Your task to perform on an android device: Open calendar and show me the fourth week of next month Image 0: 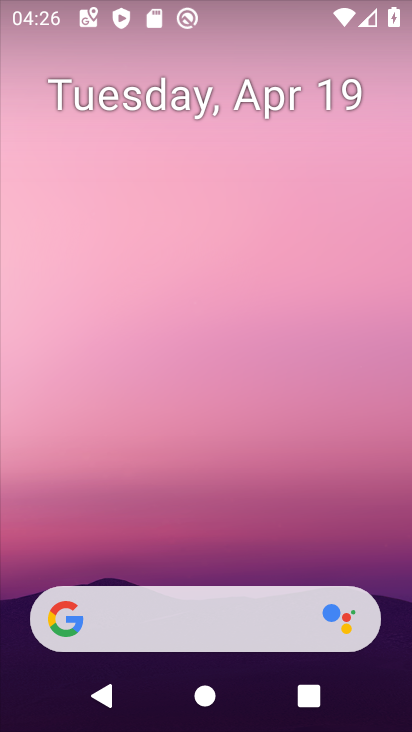
Step 0: drag from (199, 386) to (262, 168)
Your task to perform on an android device: Open calendar and show me the fourth week of next month Image 1: 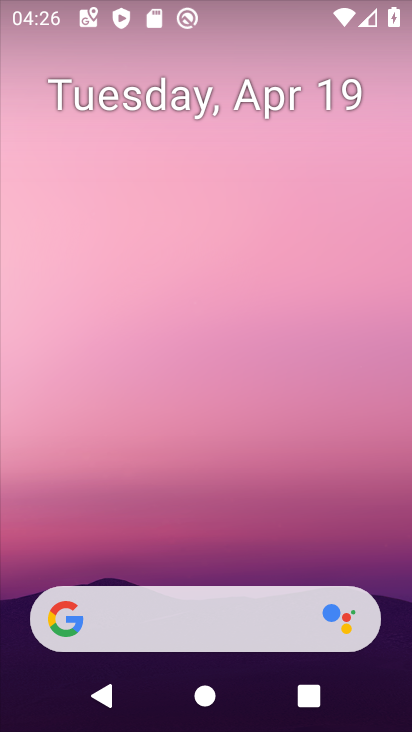
Step 1: drag from (227, 352) to (267, 151)
Your task to perform on an android device: Open calendar and show me the fourth week of next month Image 2: 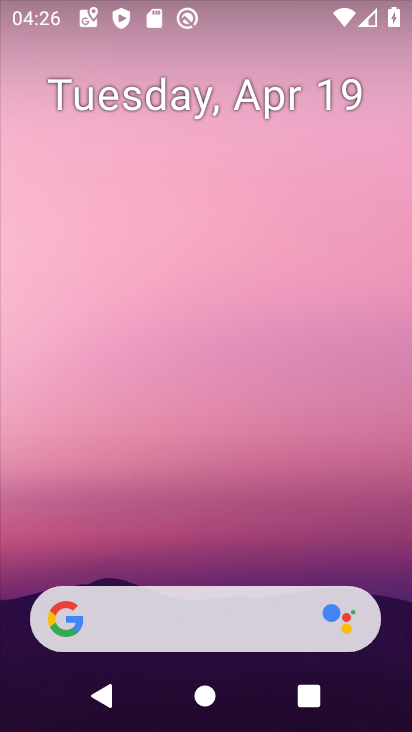
Step 2: drag from (170, 536) to (251, 125)
Your task to perform on an android device: Open calendar and show me the fourth week of next month Image 3: 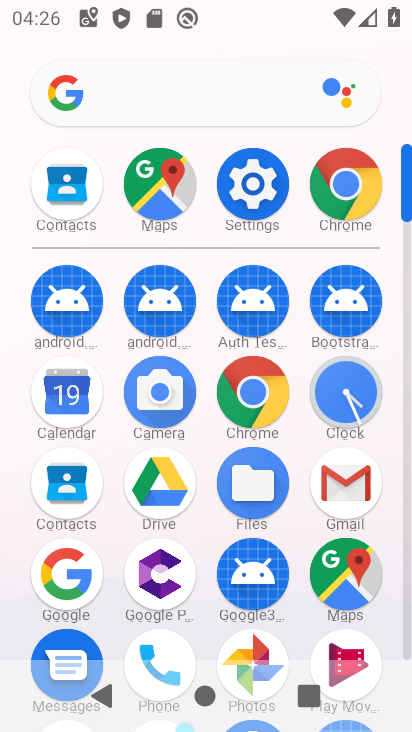
Step 3: click (64, 394)
Your task to perform on an android device: Open calendar and show me the fourth week of next month Image 4: 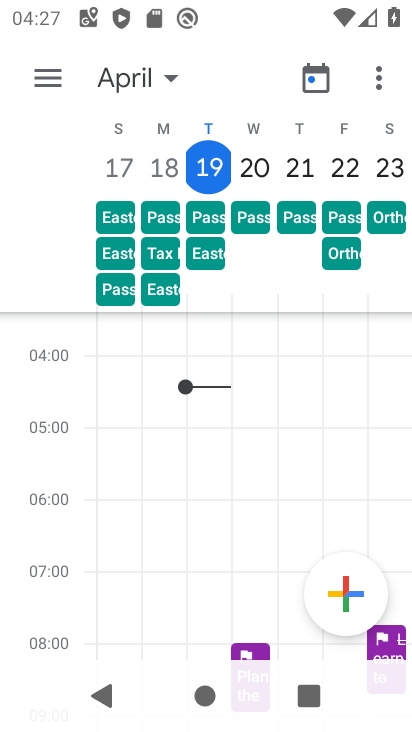
Step 4: click (172, 81)
Your task to perform on an android device: Open calendar and show me the fourth week of next month Image 5: 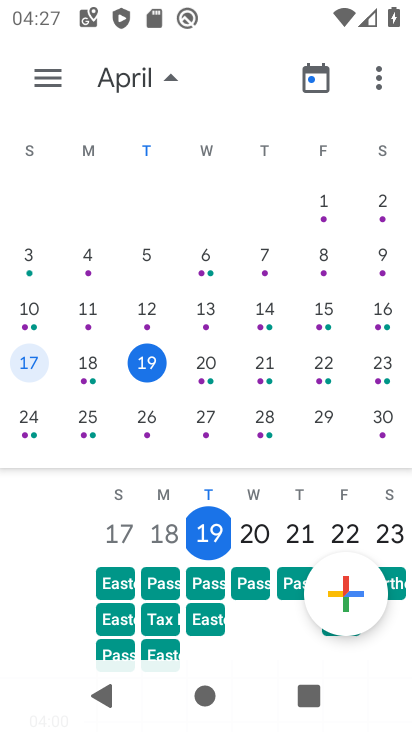
Step 5: drag from (303, 352) to (7, 340)
Your task to perform on an android device: Open calendar and show me the fourth week of next month Image 6: 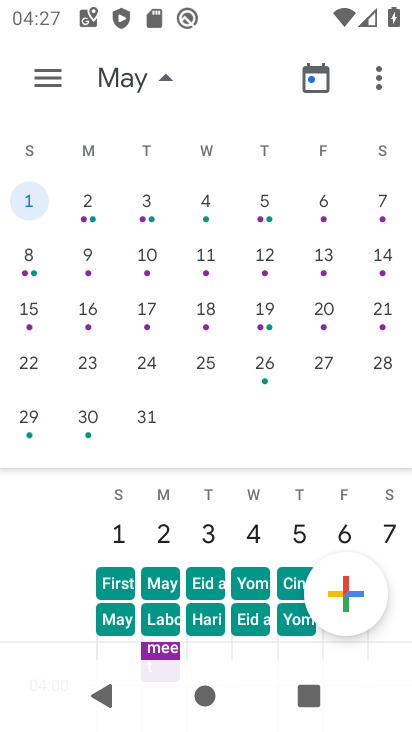
Step 6: click (88, 367)
Your task to perform on an android device: Open calendar and show me the fourth week of next month Image 7: 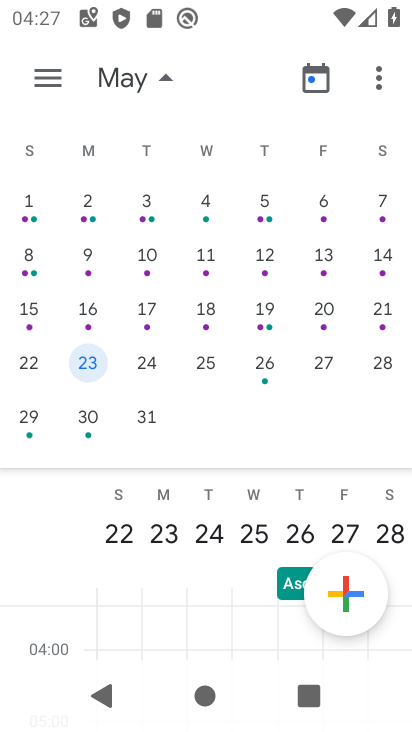
Step 7: click (48, 80)
Your task to perform on an android device: Open calendar and show me the fourth week of next month Image 8: 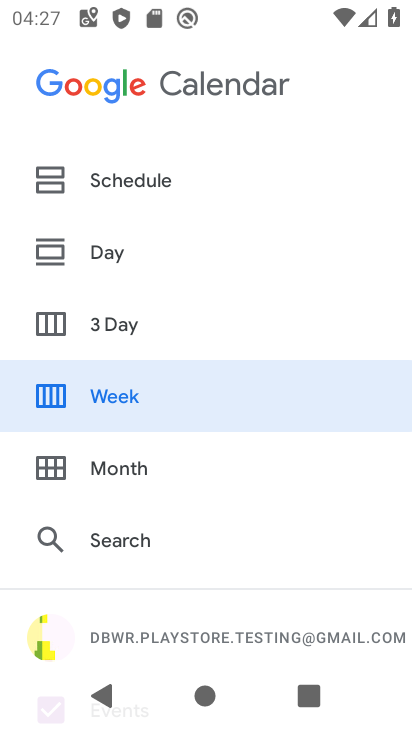
Step 8: click (130, 392)
Your task to perform on an android device: Open calendar and show me the fourth week of next month Image 9: 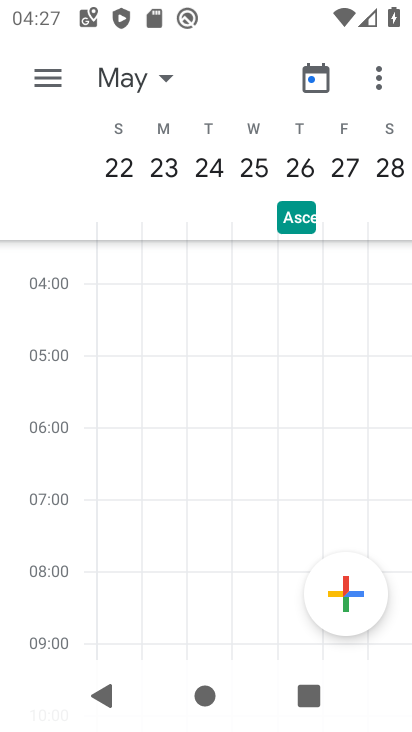
Step 9: task complete